Your task to perform on an android device: Go to sound settings Image 0: 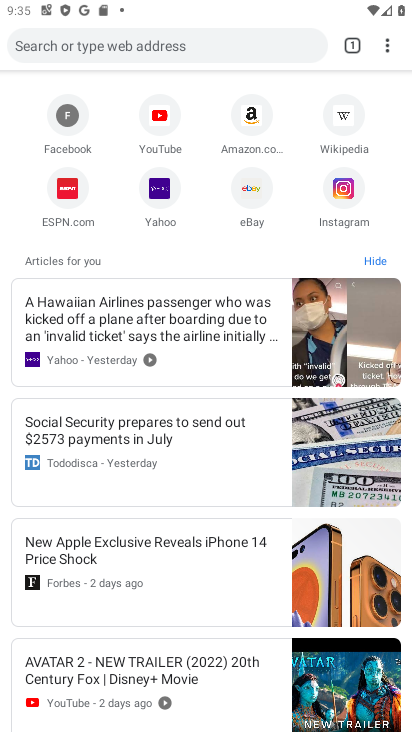
Step 0: press home button
Your task to perform on an android device: Go to sound settings Image 1: 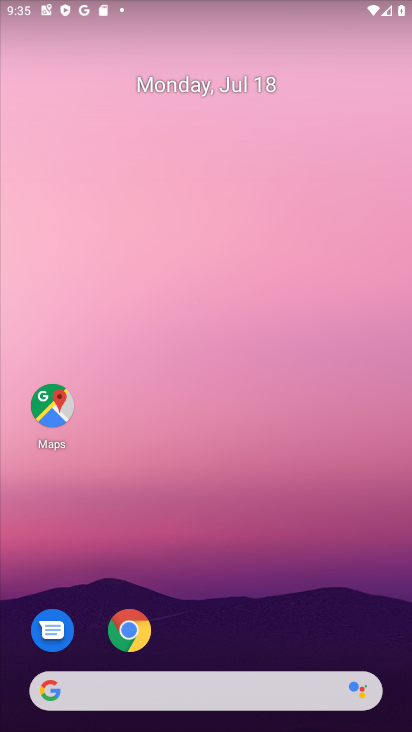
Step 1: drag from (336, 611) to (160, 27)
Your task to perform on an android device: Go to sound settings Image 2: 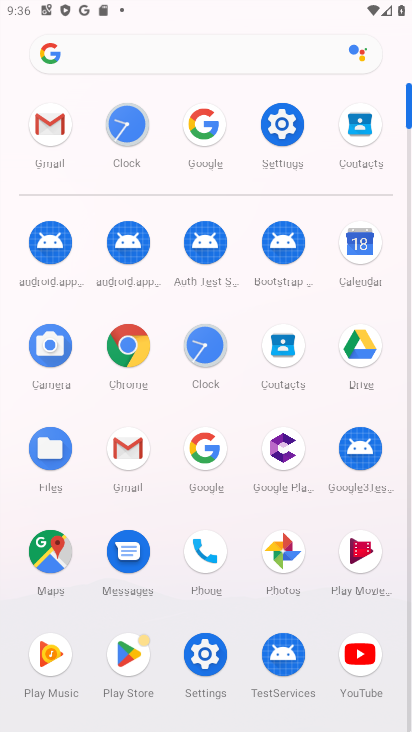
Step 2: click (211, 654)
Your task to perform on an android device: Go to sound settings Image 3: 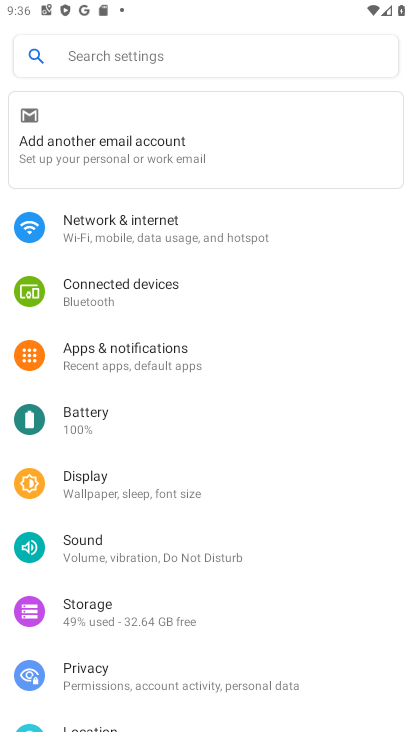
Step 3: click (107, 539)
Your task to perform on an android device: Go to sound settings Image 4: 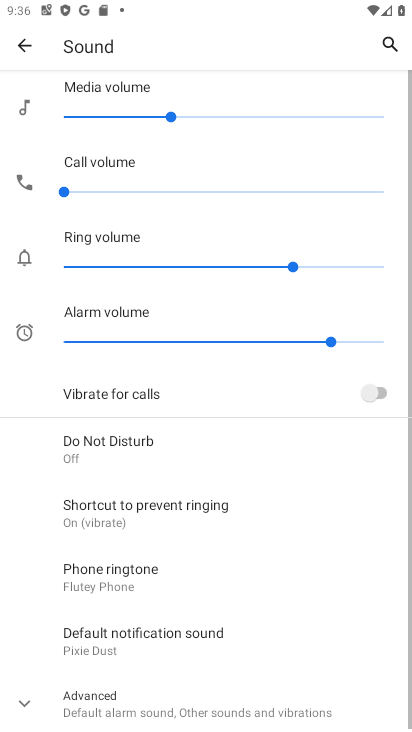
Step 4: task complete